Your task to perform on an android device: turn on bluetooth scan Image 0: 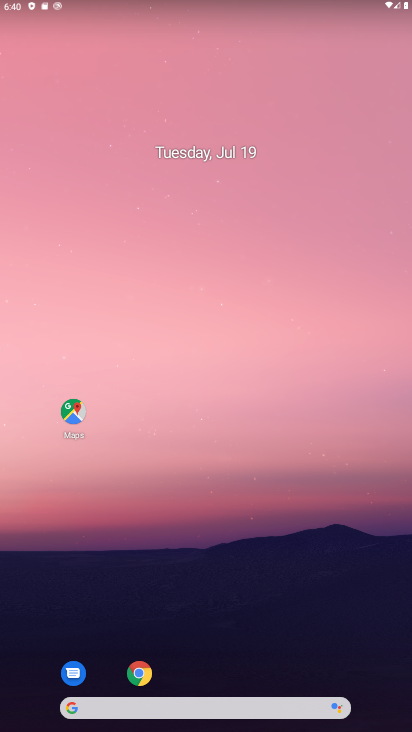
Step 0: drag from (355, 666) to (287, 0)
Your task to perform on an android device: turn on bluetooth scan Image 1: 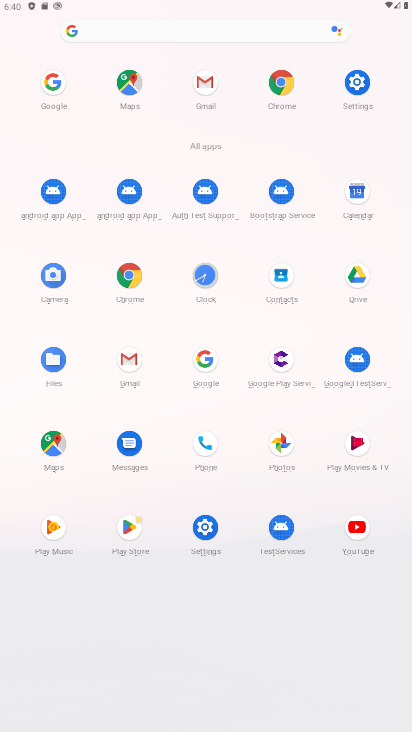
Step 1: click (207, 527)
Your task to perform on an android device: turn on bluetooth scan Image 2: 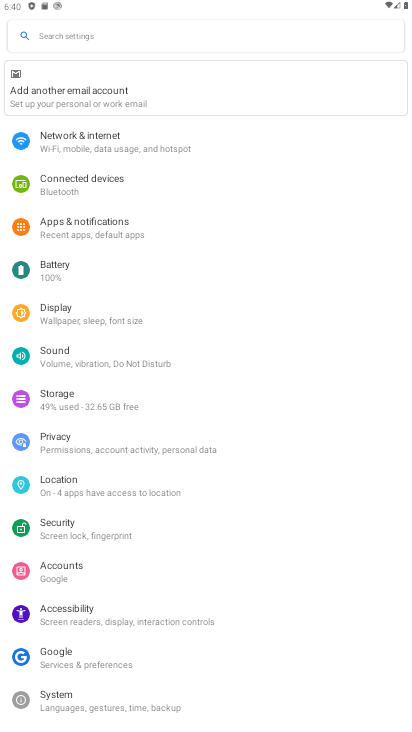
Step 2: click (73, 486)
Your task to perform on an android device: turn on bluetooth scan Image 3: 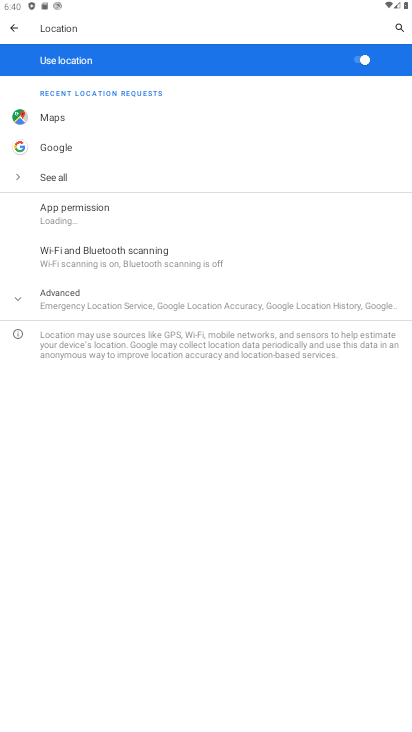
Step 3: click (188, 263)
Your task to perform on an android device: turn on bluetooth scan Image 4: 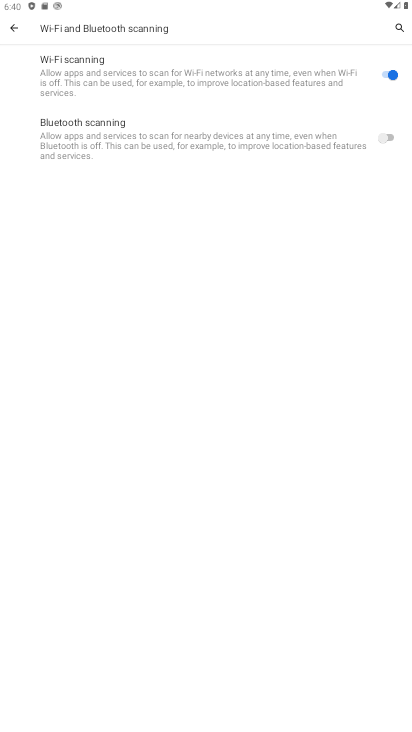
Step 4: click (389, 139)
Your task to perform on an android device: turn on bluetooth scan Image 5: 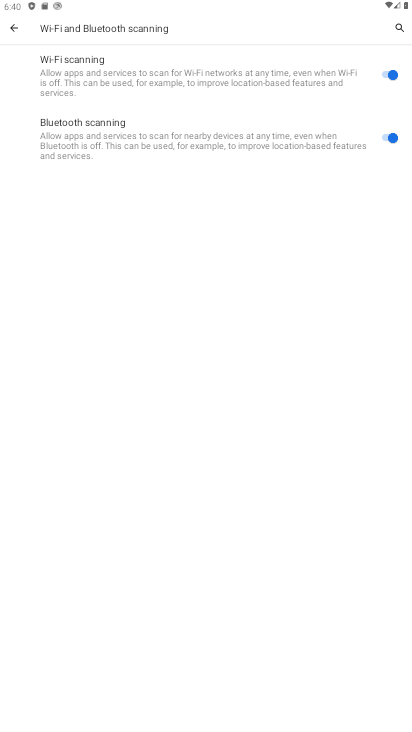
Step 5: task complete